Your task to perform on an android device: Open Android settings Image 0: 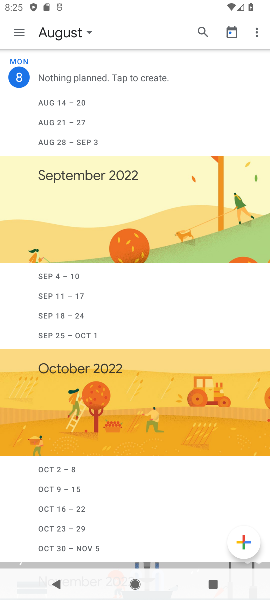
Step 0: press home button
Your task to perform on an android device: Open Android settings Image 1: 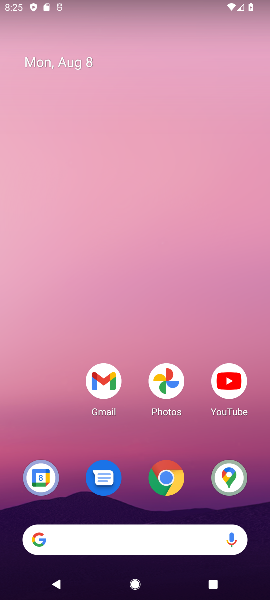
Step 1: drag from (138, 504) to (216, 169)
Your task to perform on an android device: Open Android settings Image 2: 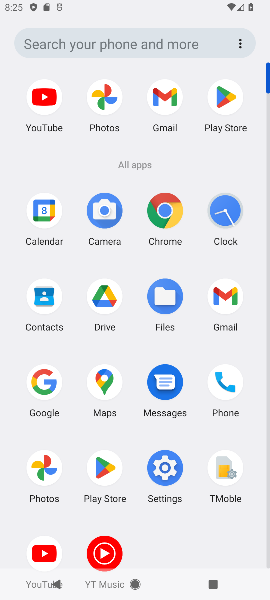
Step 2: click (161, 464)
Your task to perform on an android device: Open Android settings Image 3: 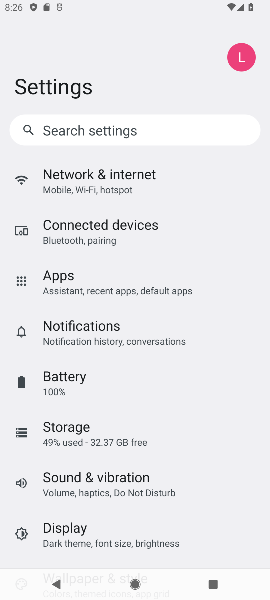
Step 3: task complete